Your task to perform on an android device: turn on improve location accuracy Image 0: 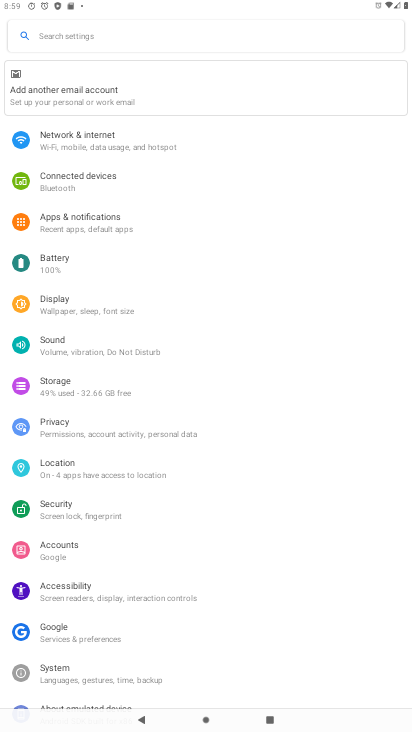
Step 0: press home button
Your task to perform on an android device: turn on improve location accuracy Image 1: 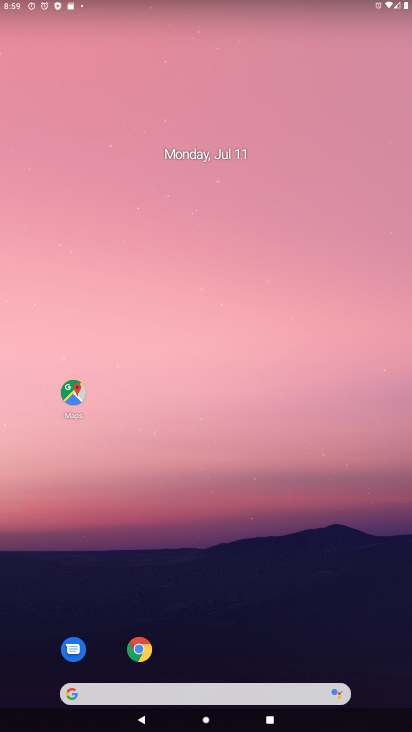
Step 1: drag from (205, 689) to (131, 136)
Your task to perform on an android device: turn on improve location accuracy Image 2: 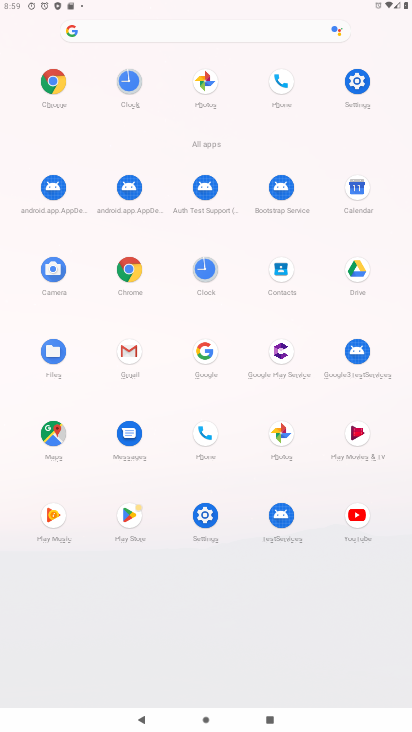
Step 2: click (359, 84)
Your task to perform on an android device: turn on improve location accuracy Image 3: 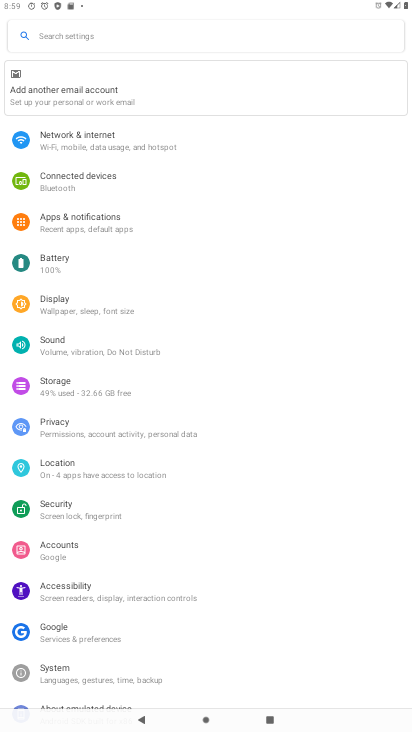
Step 3: click (65, 469)
Your task to perform on an android device: turn on improve location accuracy Image 4: 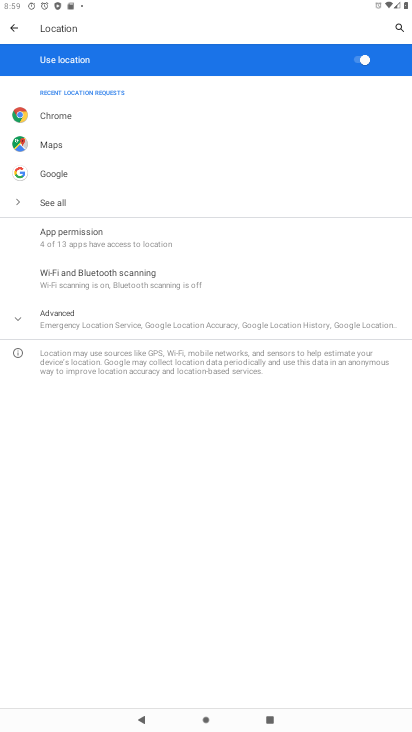
Step 4: click (76, 320)
Your task to perform on an android device: turn on improve location accuracy Image 5: 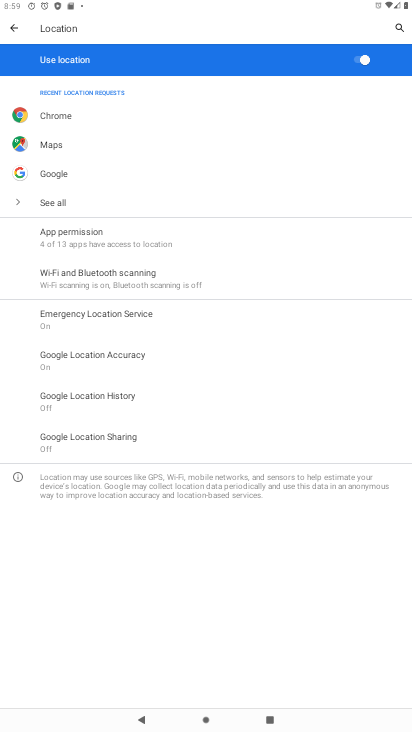
Step 5: click (90, 358)
Your task to perform on an android device: turn on improve location accuracy Image 6: 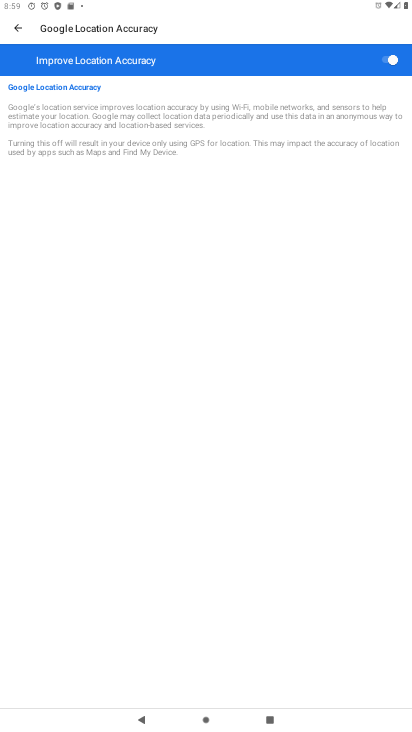
Step 6: task complete